Your task to perform on an android device: Clear the cart on amazon.com. Add "macbook air" to the cart on amazon.com Image 0: 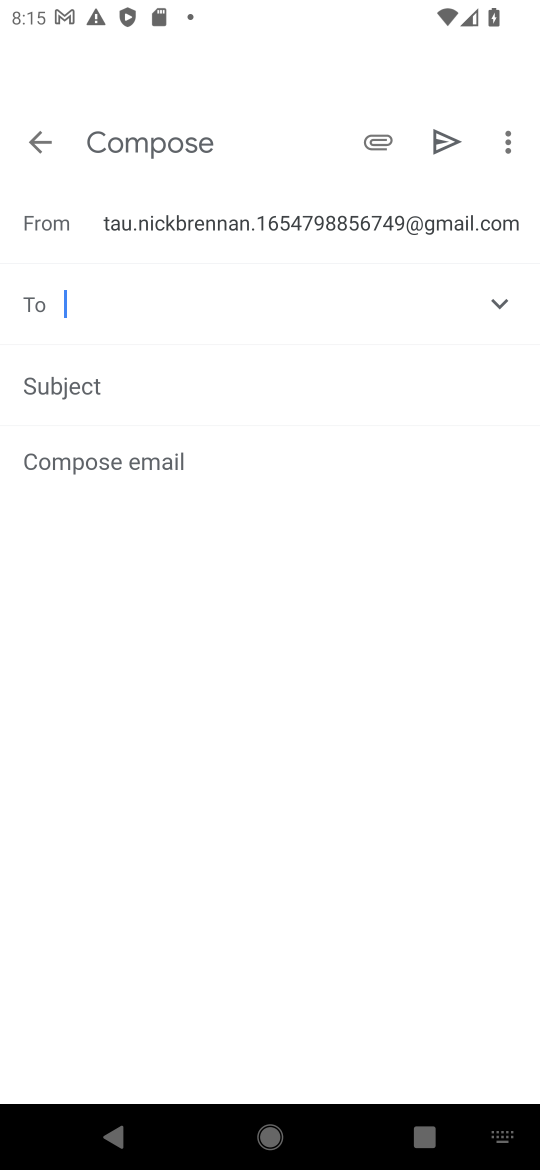
Step 0: press home button
Your task to perform on an android device: Clear the cart on amazon.com. Add "macbook air" to the cart on amazon.com Image 1: 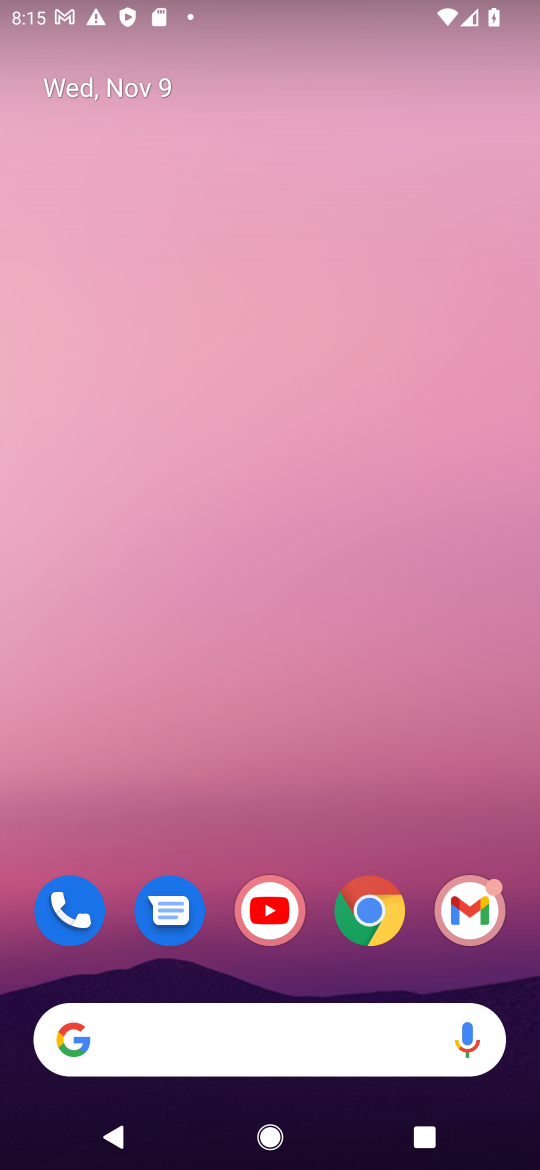
Step 1: click (366, 920)
Your task to perform on an android device: Clear the cart on amazon.com. Add "macbook air" to the cart on amazon.com Image 2: 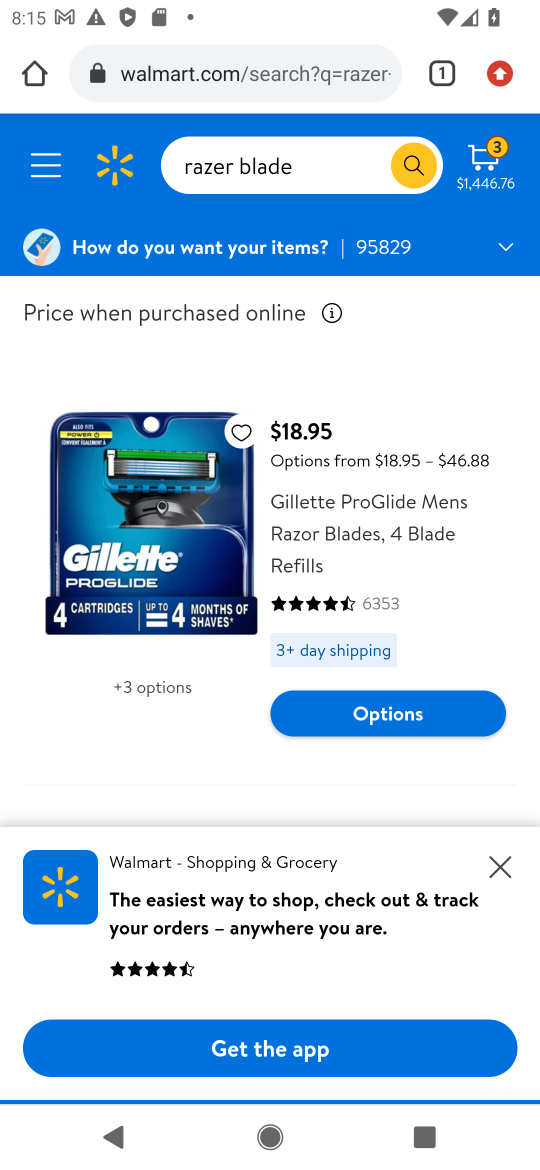
Step 2: click (278, 69)
Your task to perform on an android device: Clear the cart on amazon.com. Add "macbook air" to the cart on amazon.com Image 3: 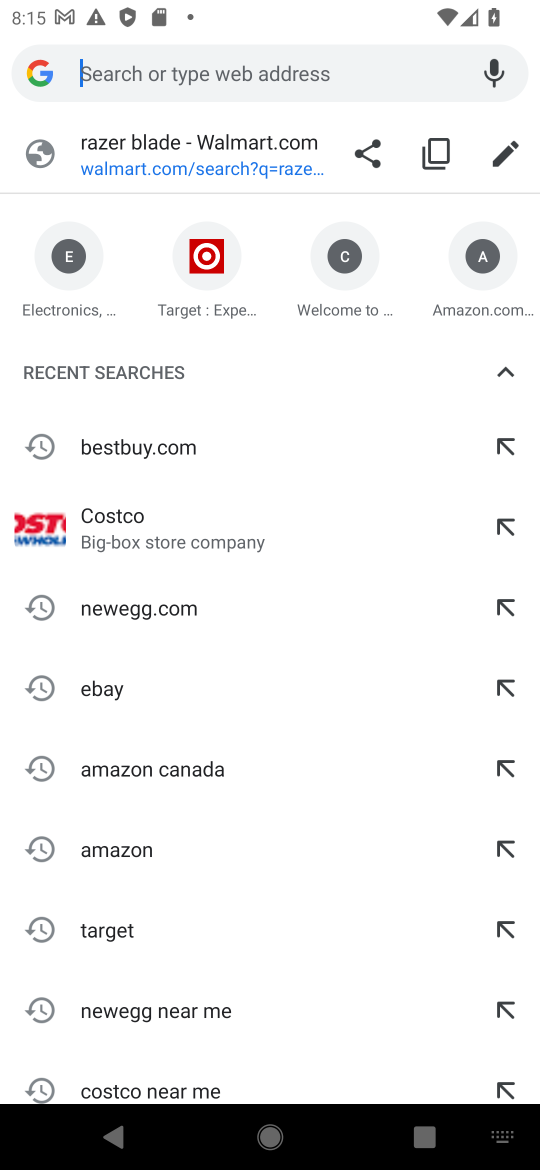
Step 3: click (487, 267)
Your task to perform on an android device: Clear the cart on amazon.com. Add "macbook air" to the cart on amazon.com Image 4: 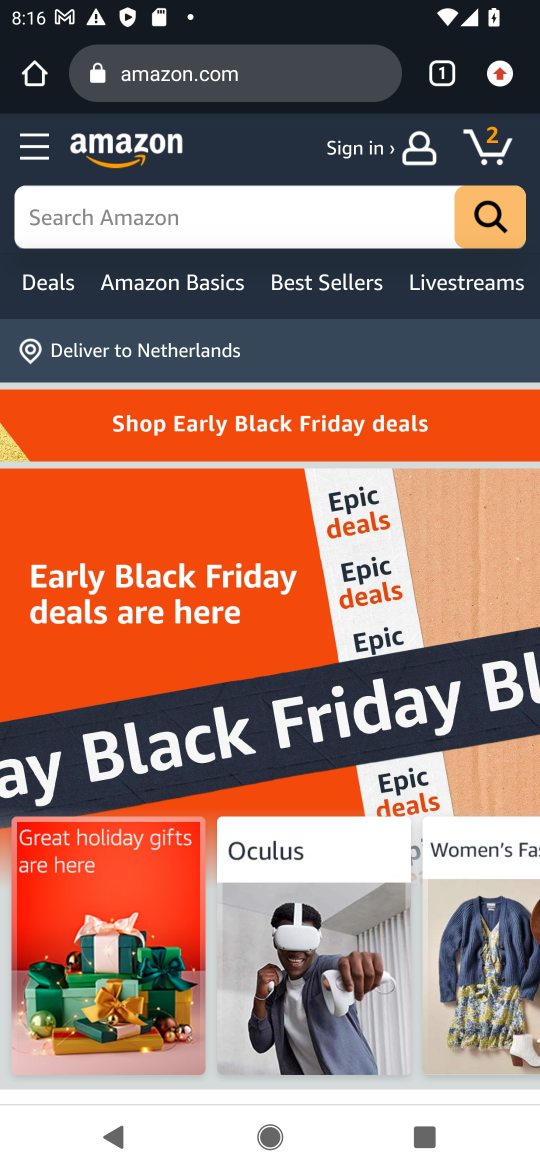
Step 4: click (491, 142)
Your task to perform on an android device: Clear the cart on amazon.com. Add "macbook air" to the cart on amazon.com Image 5: 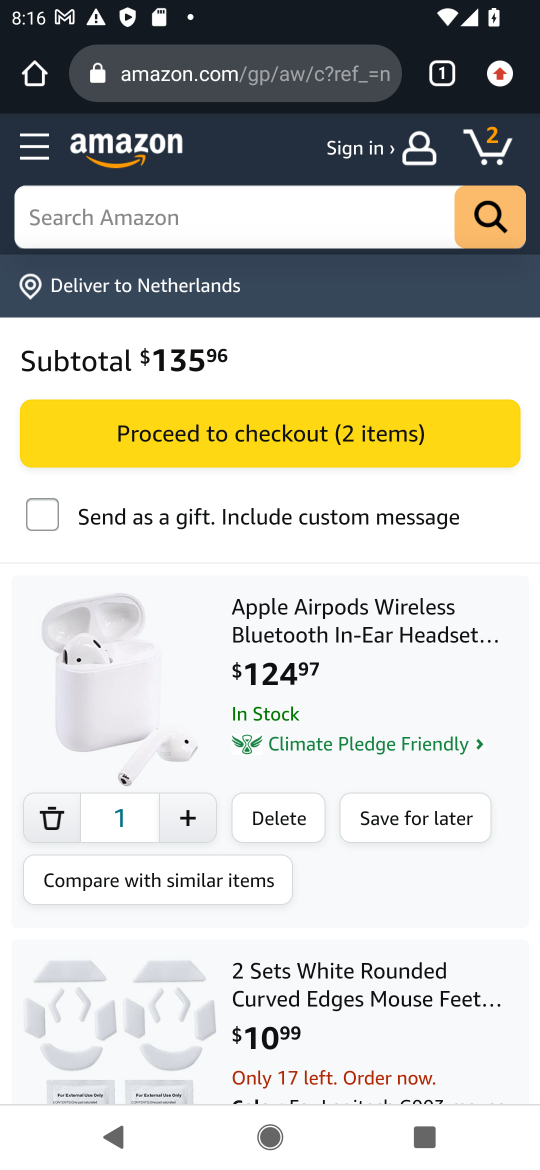
Step 5: click (266, 810)
Your task to perform on an android device: Clear the cart on amazon.com. Add "macbook air" to the cart on amazon.com Image 6: 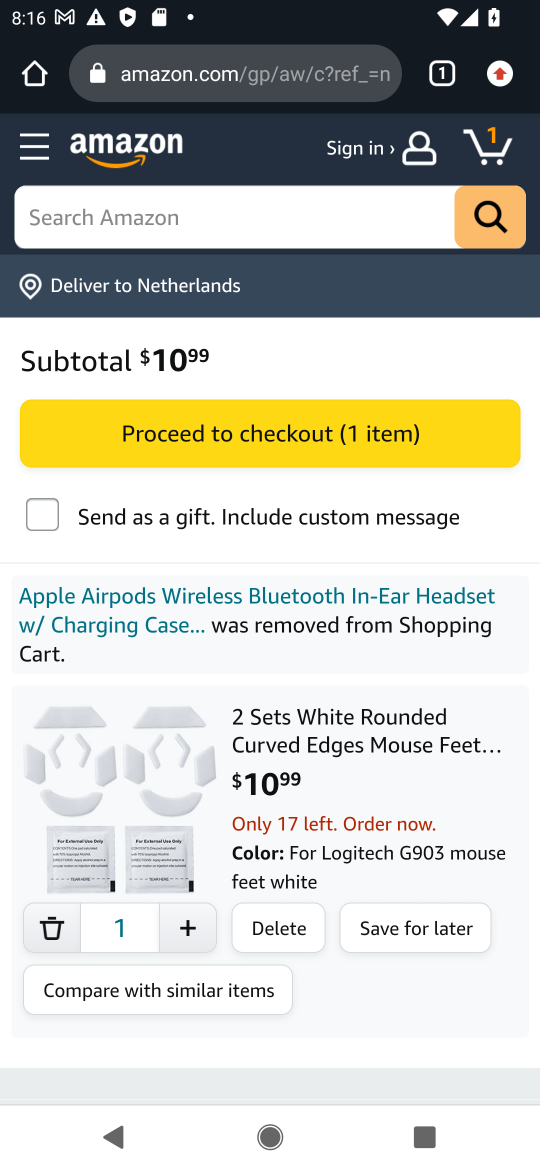
Step 6: click (281, 915)
Your task to perform on an android device: Clear the cart on amazon.com. Add "macbook air" to the cart on amazon.com Image 7: 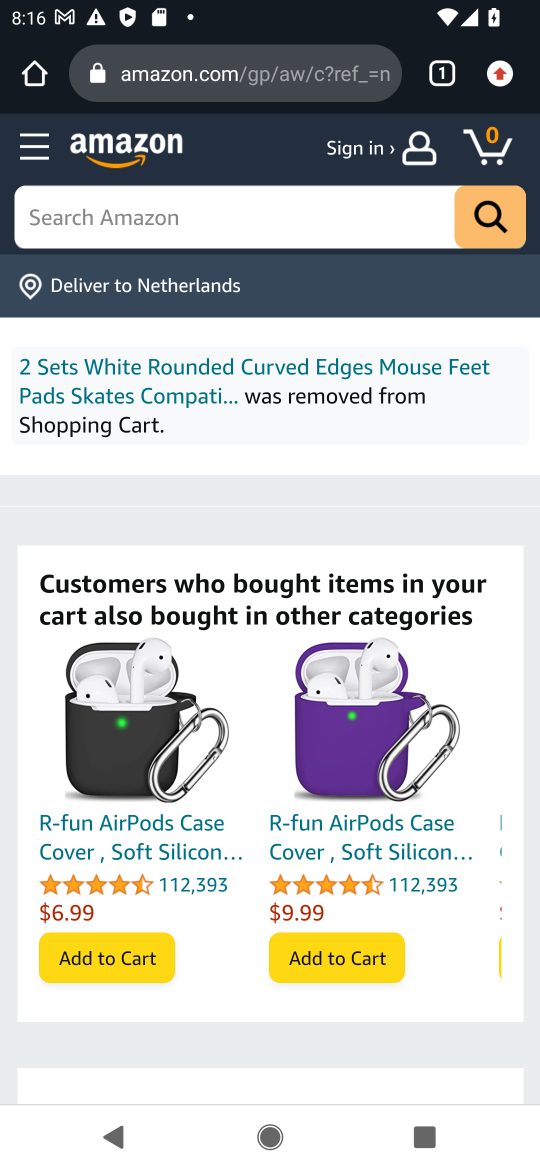
Step 7: click (233, 225)
Your task to perform on an android device: Clear the cart on amazon.com. Add "macbook air" to the cart on amazon.com Image 8: 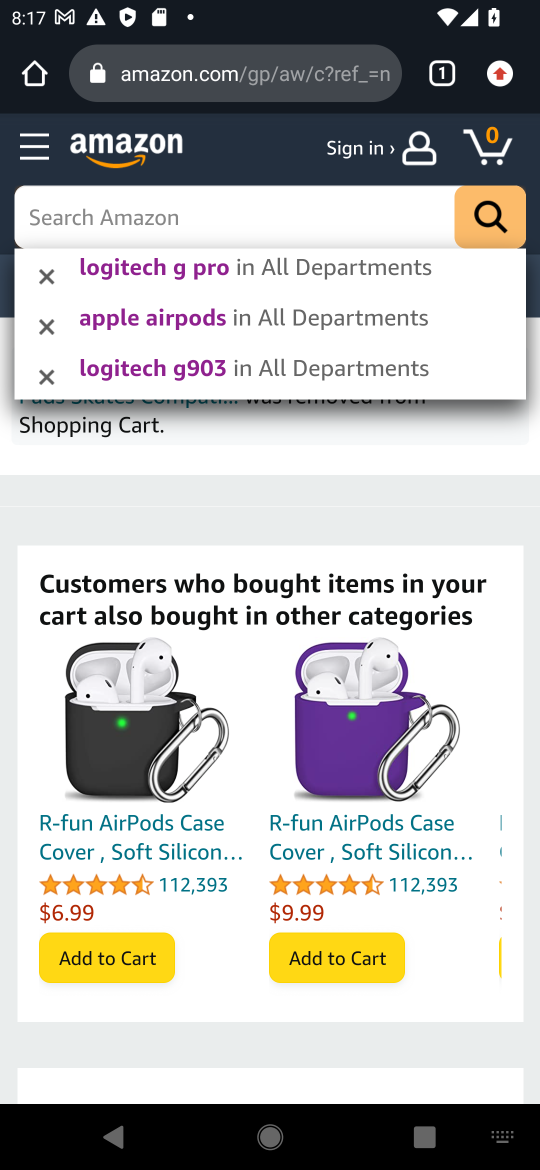
Step 8: type "macbook air"
Your task to perform on an android device: Clear the cart on amazon.com. Add "macbook air" to the cart on amazon.com Image 9: 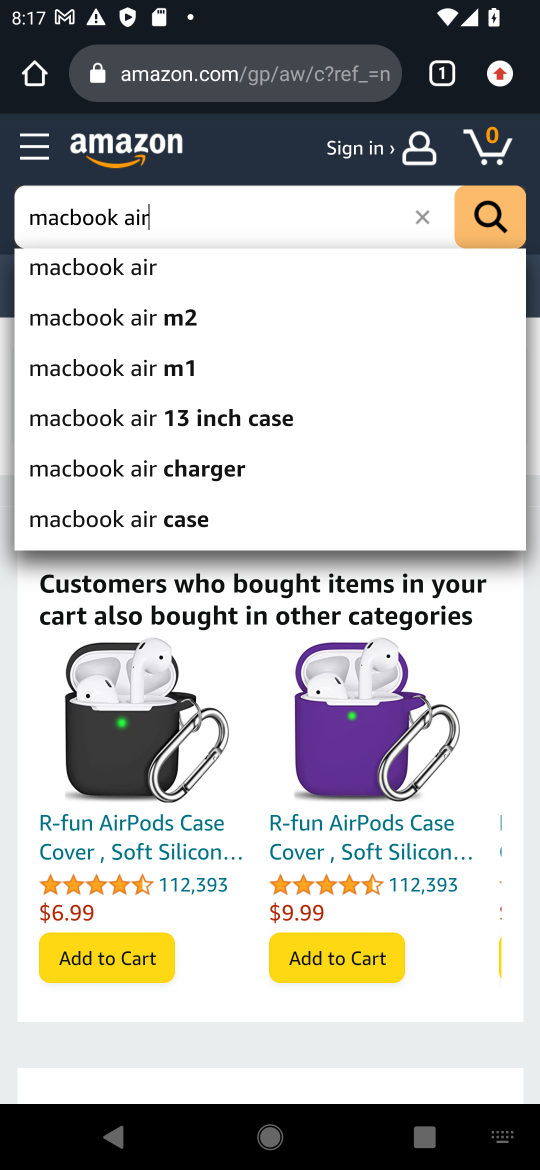
Step 9: click (104, 268)
Your task to perform on an android device: Clear the cart on amazon.com. Add "macbook air" to the cart on amazon.com Image 10: 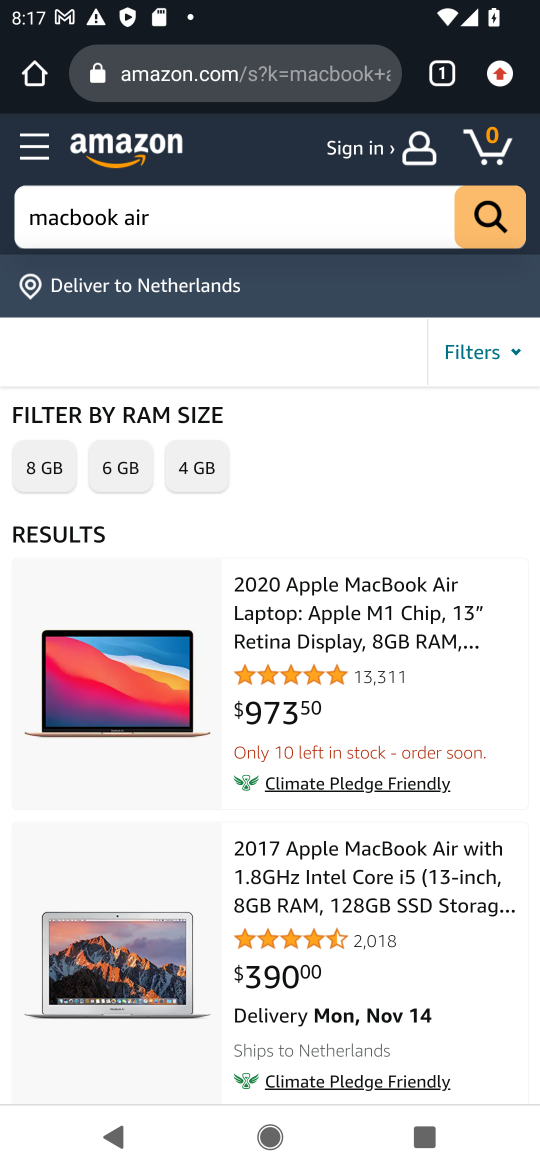
Step 10: click (154, 705)
Your task to perform on an android device: Clear the cart on amazon.com. Add "macbook air" to the cart on amazon.com Image 11: 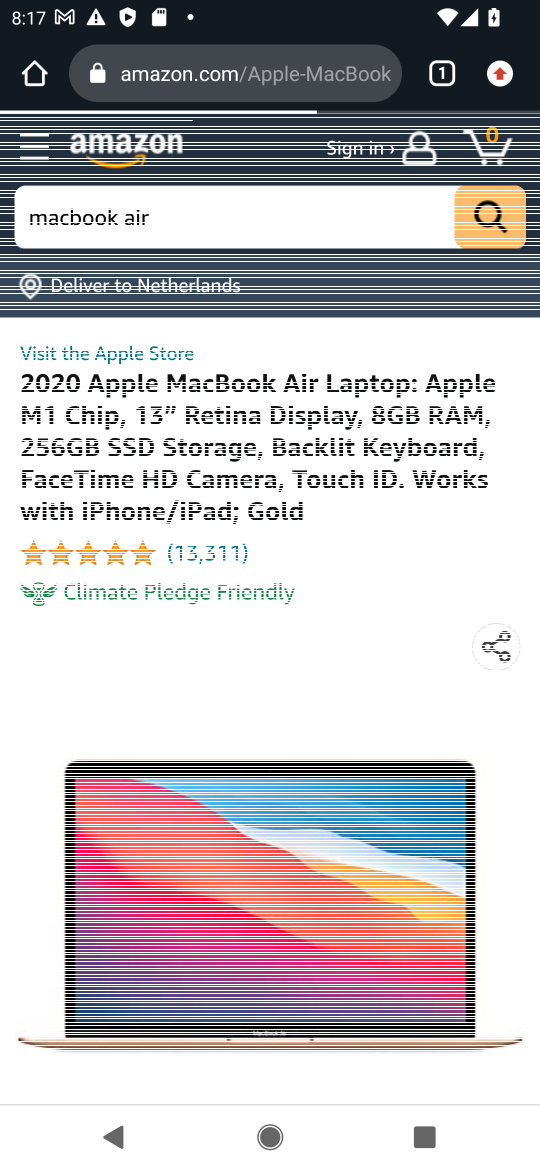
Step 11: drag from (220, 832) to (211, 403)
Your task to perform on an android device: Clear the cart on amazon.com. Add "macbook air" to the cart on amazon.com Image 12: 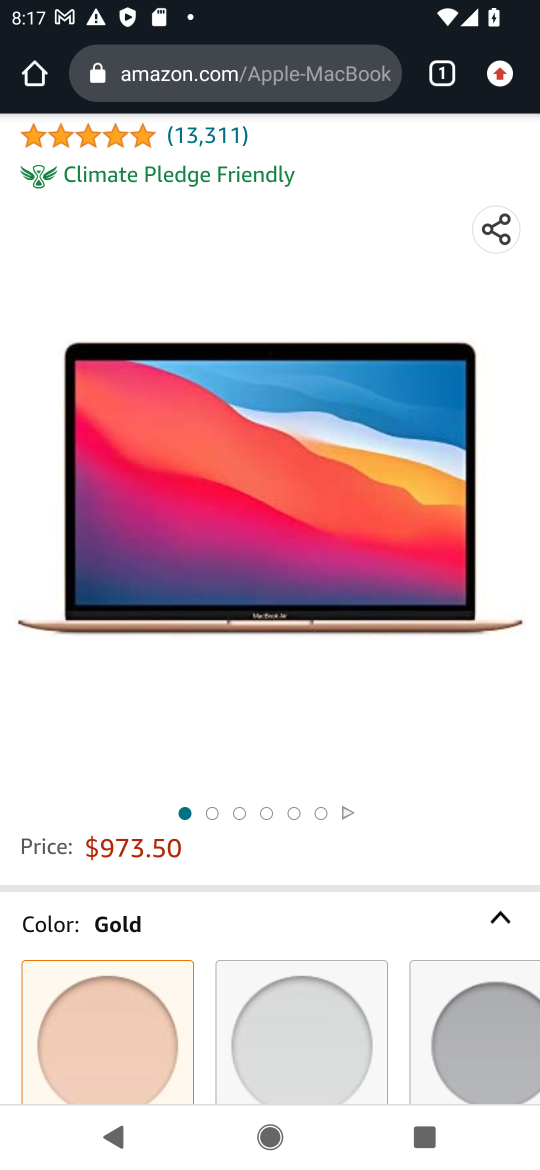
Step 12: drag from (291, 872) to (240, 338)
Your task to perform on an android device: Clear the cart on amazon.com. Add "macbook air" to the cart on amazon.com Image 13: 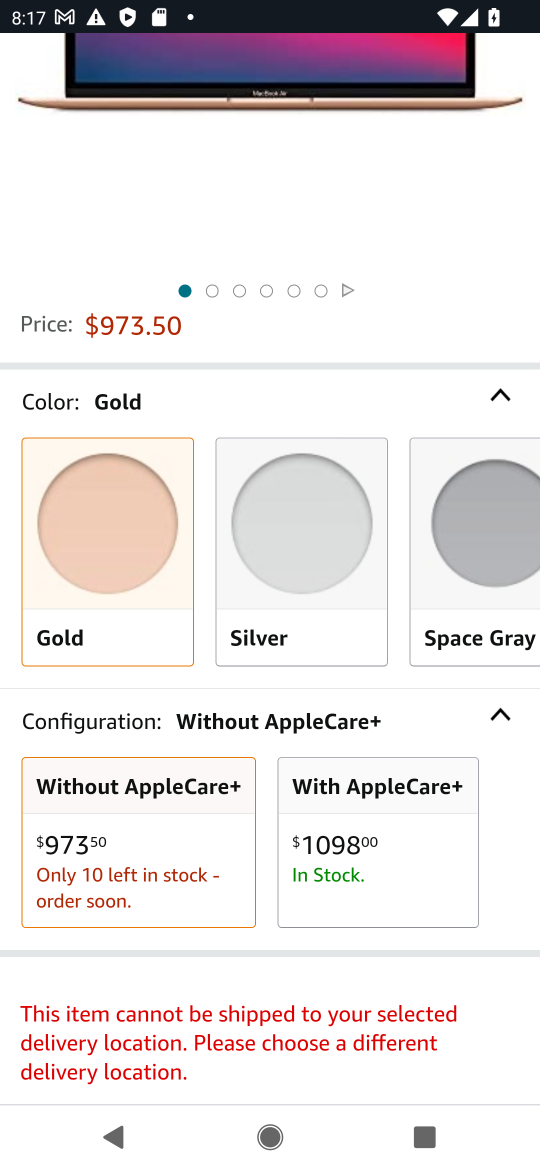
Step 13: drag from (238, 891) to (231, 400)
Your task to perform on an android device: Clear the cart on amazon.com. Add "macbook air" to the cart on amazon.com Image 14: 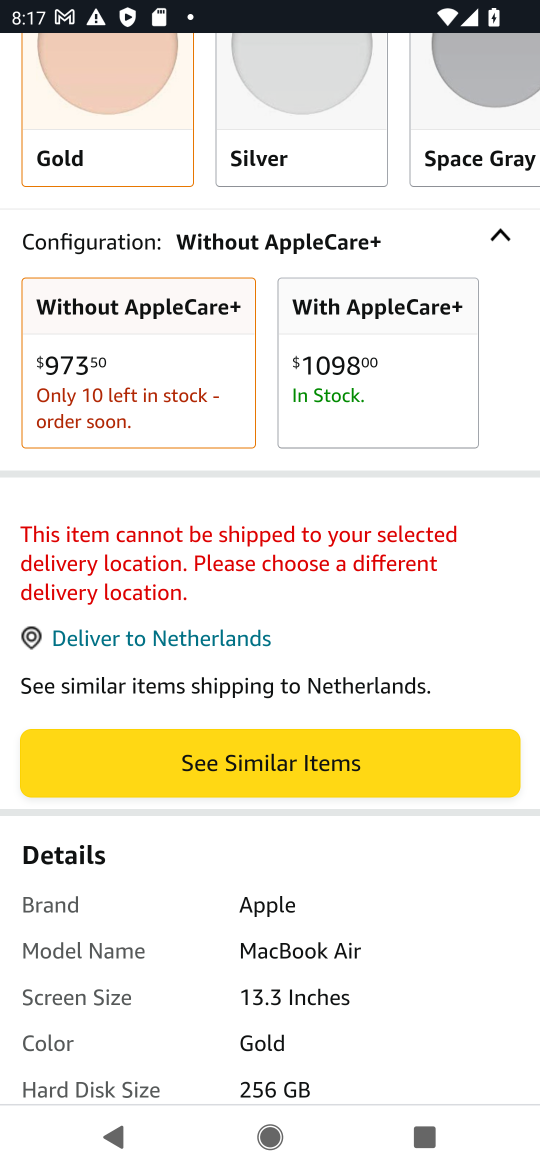
Step 14: drag from (228, 391) to (174, 1150)
Your task to perform on an android device: Clear the cart on amazon.com. Add "macbook air" to the cart on amazon.com Image 15: 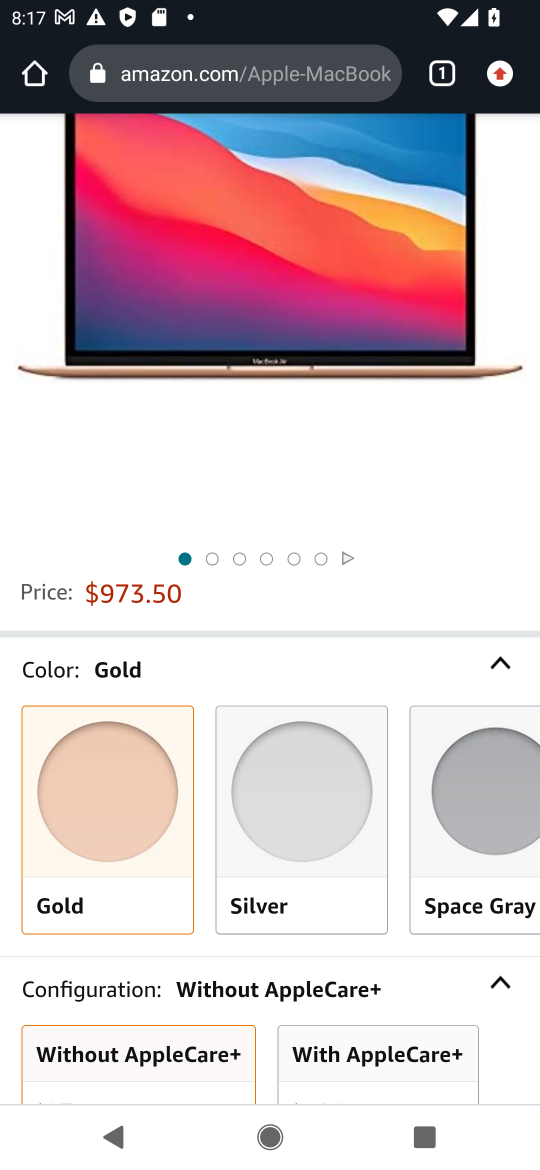
Step 15: drag from (487, 446) to (332, 964)
Your task to perform on an android device: Clear the cart on amazon.com. Add "macbook air" to the cart on amazon.com Image 16: 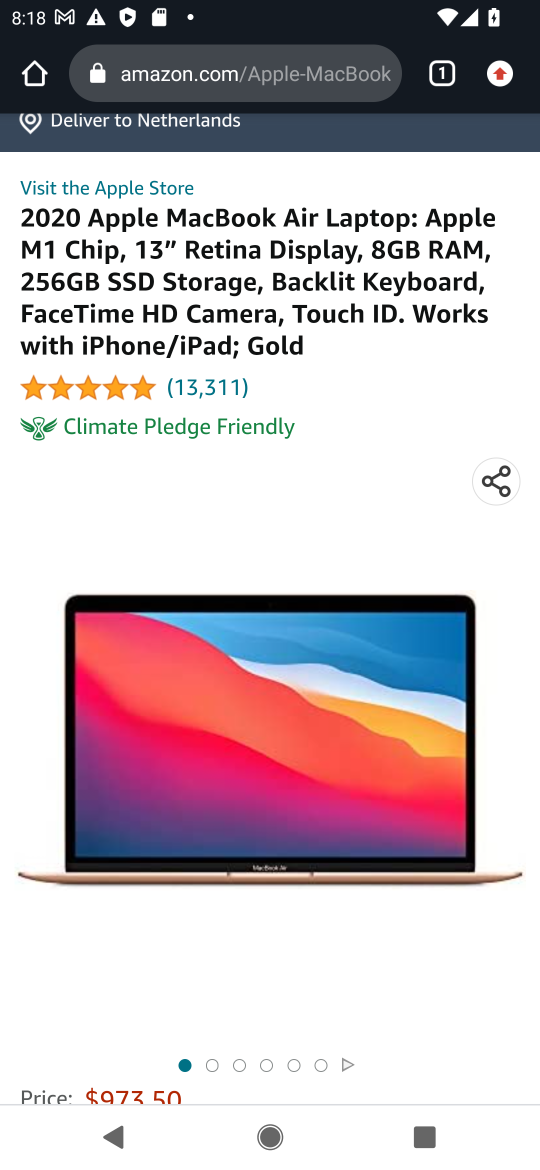
Step 16: drag from (342, 372) to (320, 567)
Your task to perform on an android device: Clear the cart on amazon.com. Add "macbook air" to the cart on amazon.com Image 17: 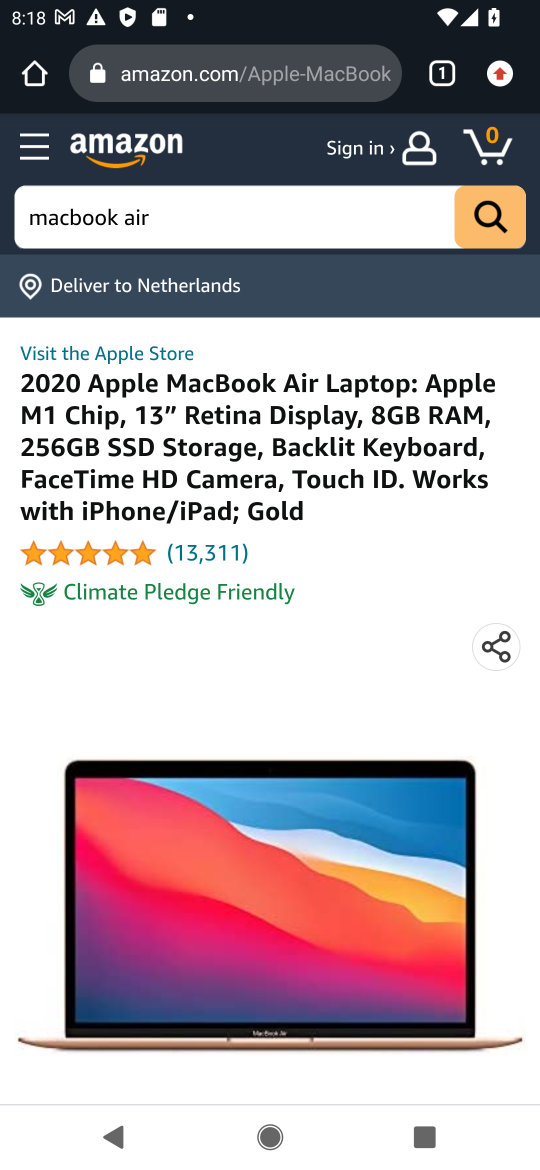
Step 17: press back button
Your task to perform on an android device: Clear the cart on amazon.com. Add "macbook air" to the cart on amazon.com Image 18: 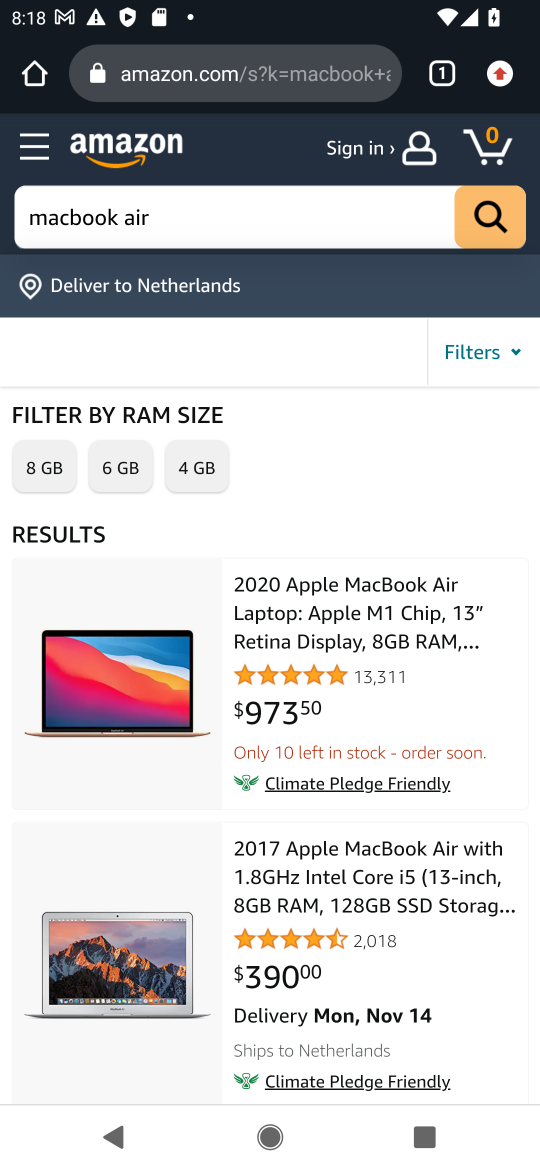
Step 18: drag from (186, 651) to (202, 322)
Your task to perform on an android device: Clear the cart on amazon.com. Add "macbook air" to the cart on amazon.com Image 19: 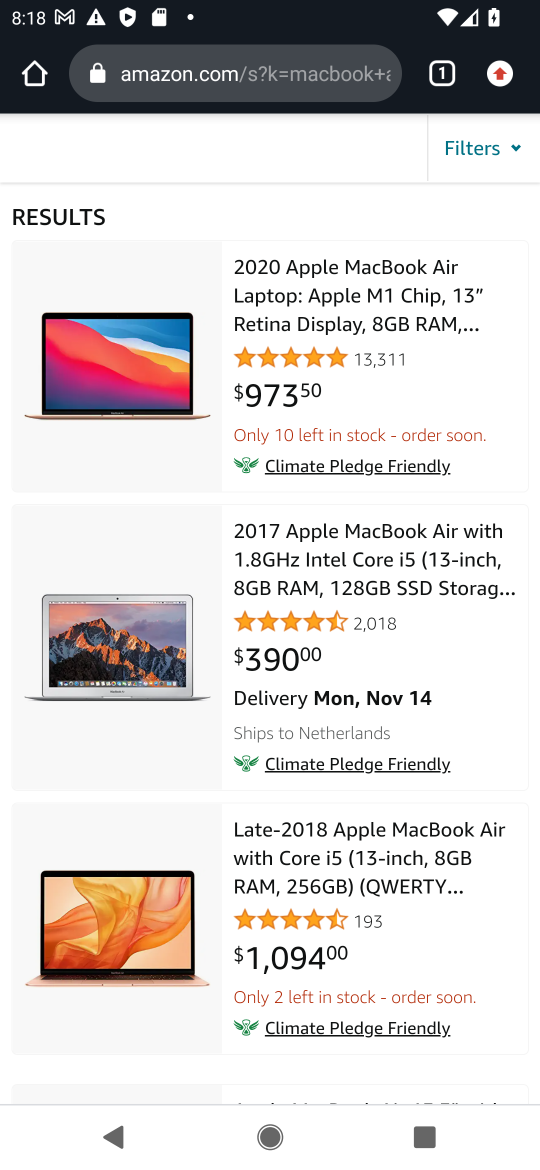
Step 19: click (102, 670)
Your task to perform on an android device: Clear the cart on amazon.com. Add "macbook air" to the cart on amazon.com Image 20: 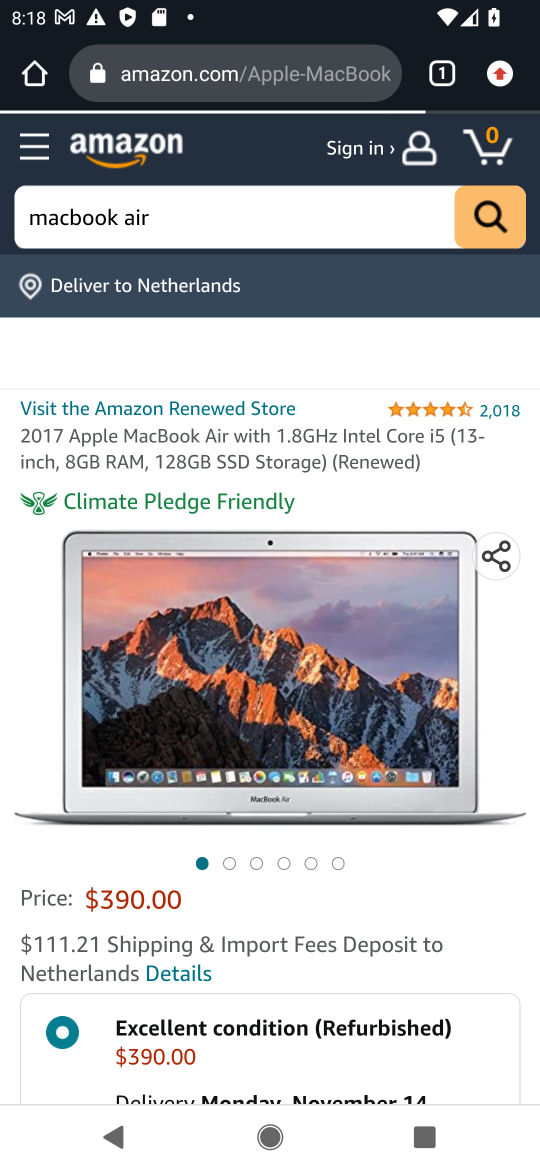
Step 20: drag from (246, 873) to (219, 363)
Your task to perform on an android device: Clear the cart on amazon.com. Add "macbook air" to the cart on amazon.com Image 21: 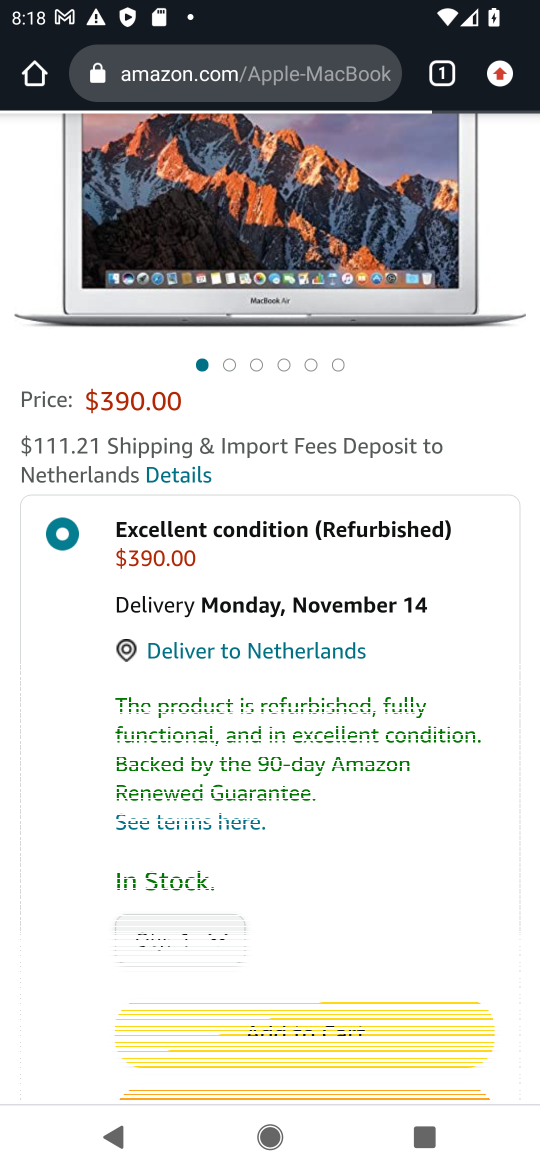
Step 21: drag from (234, 881) to (227, 580)
Your task to perform on an android device: Clear the cart on amazon.com. Add "macbook air" to the cart on amazon.com Image 22: 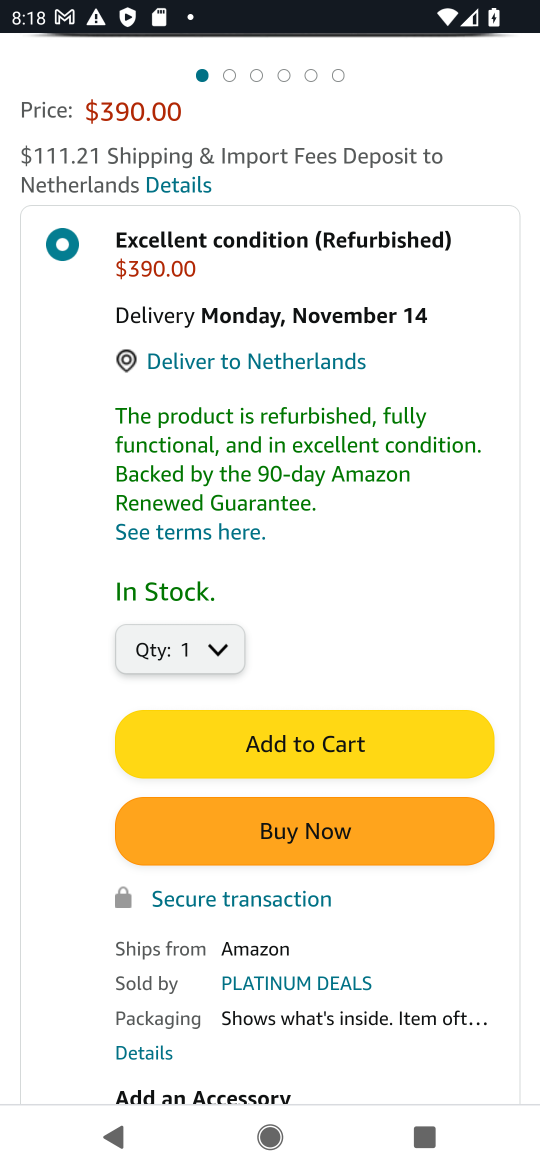
Step 22: click (294, 735)
Your task to perform on an android device: Clear the cart on amazon.com. Add "macbook air" to the cart on amazon.com Image 23: 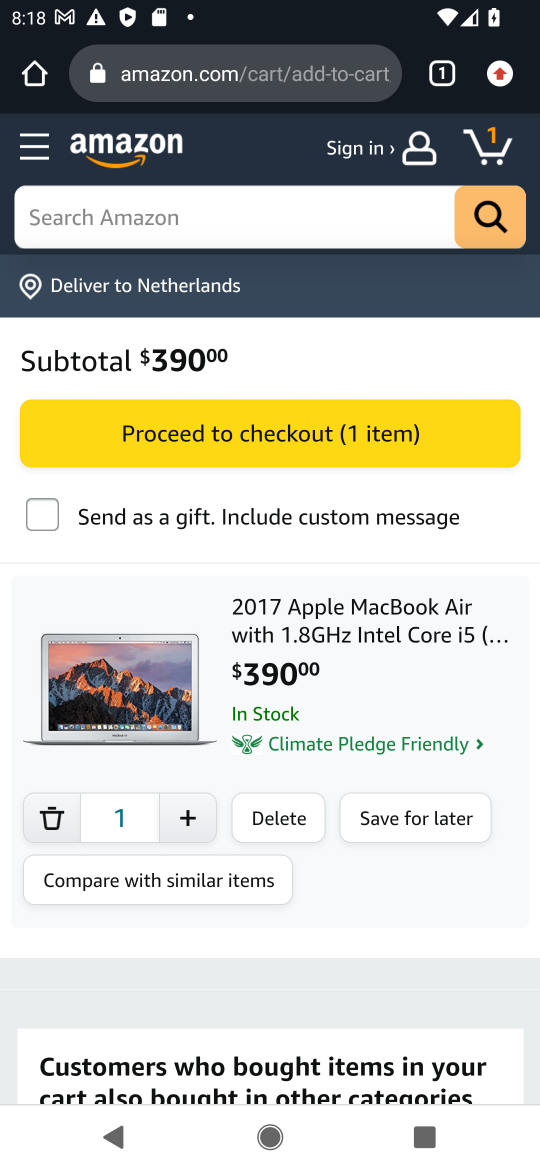
Step 23: task complete